Your task to perform on an android device: What's on my calendar tomorrow? Image 0: 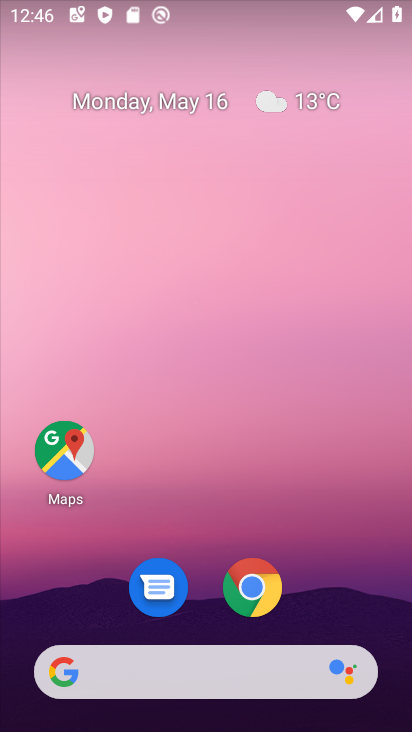
Step 0: drag from (252, 720) to (259, 257)
Your task to perform on an android device: What's on my calendar tomorrow? Image 1: 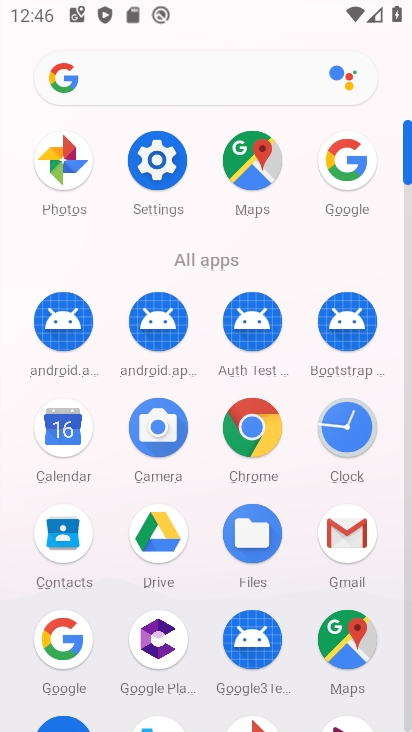
Step 1: click (60, 440)
Your task to perform on an android device: What's on my calendar tomorrow? Image 2: 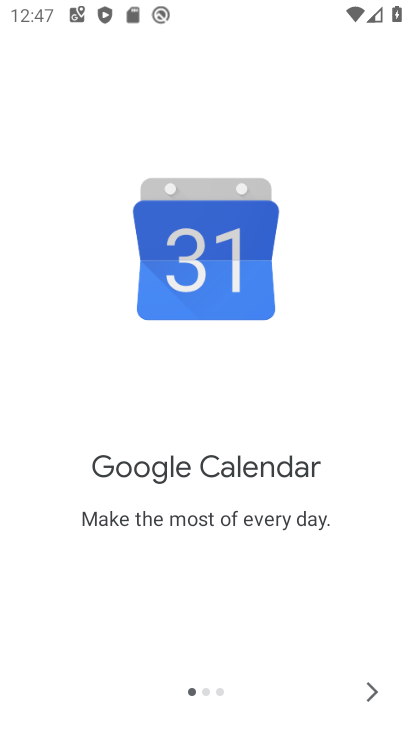
Step 2: click (369, 688)
Your task to perform on an android device: What's on my calendar tomorrow? Image 3: 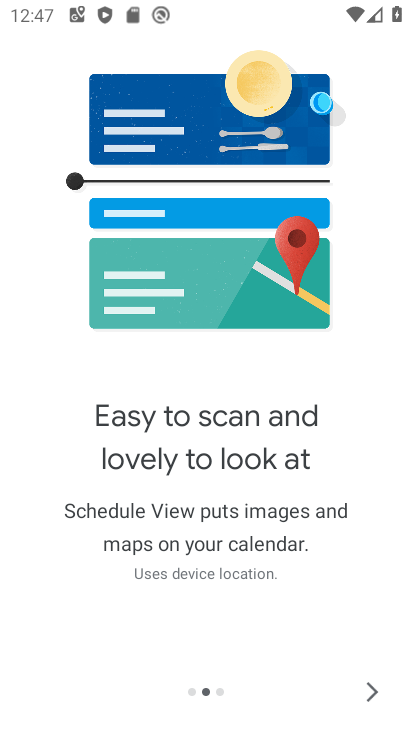
Step 3: click (369, 688)
Your task to perform on an android device: What's on my calendar tomorrow? Image 4: 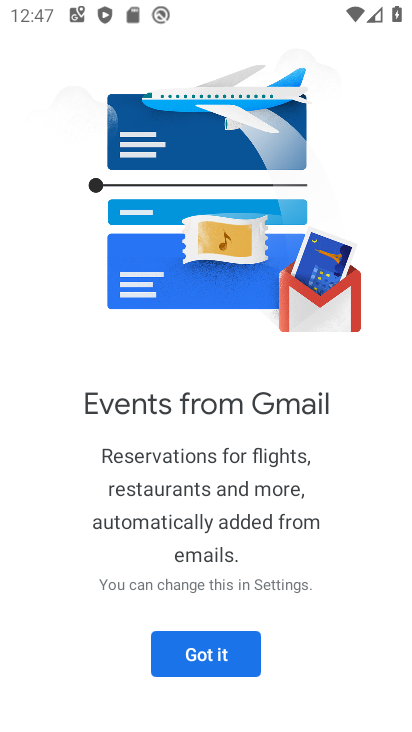
Step 4: click (194, 661)
Your task to perform on an android device: What's on my calendar tomorrow? Image 5: 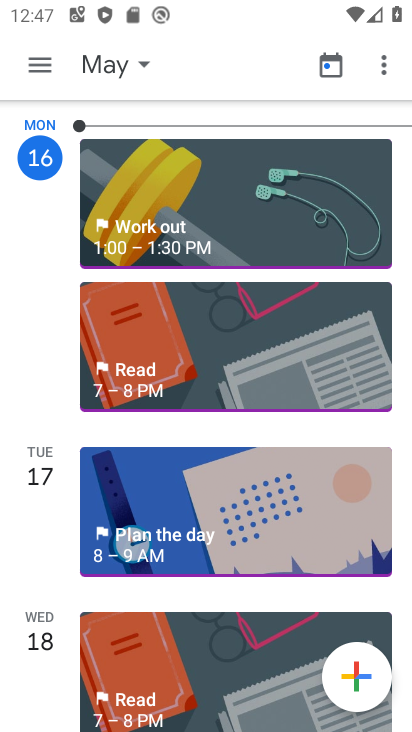
Step 5: click (97, 67)
Your task to perform on an android device: What's on my calendar tomorrow? Image 6: 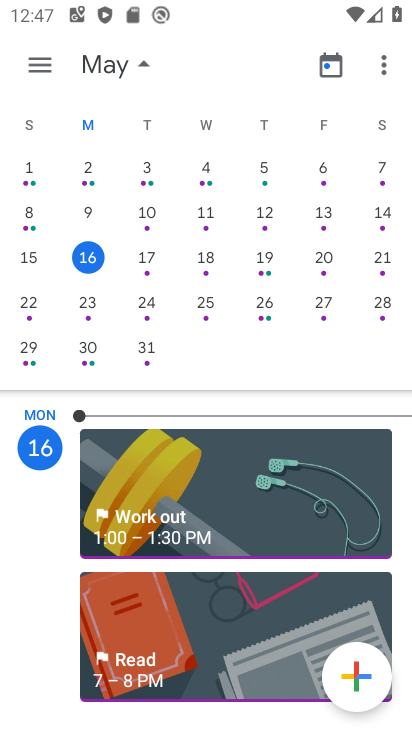
Step 6: click (145, 256)
Your task to perform on an android device: What's on my calendar tomorrow? Image 7: 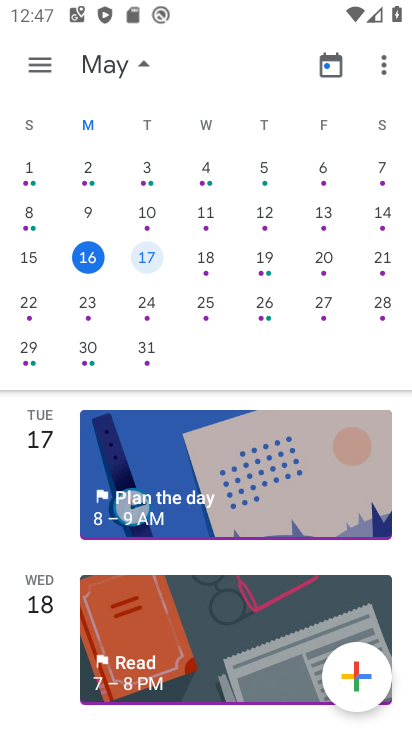
Step 7: task complete